Your task to perform on an android device: Open Google Maps and go to "Timeline" Image 0: 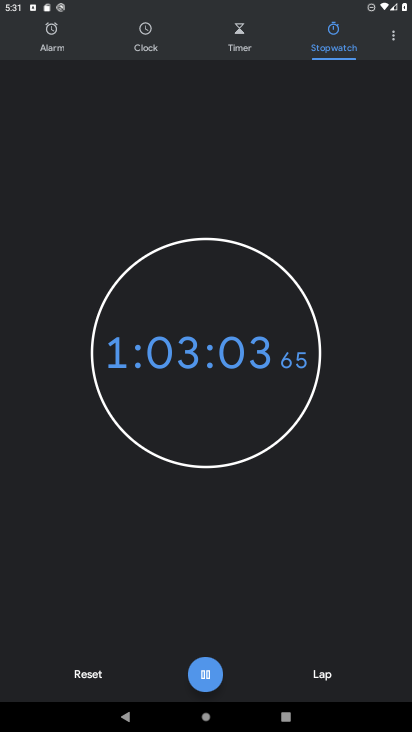
Step 0: press home button
Your task to perform on an android device: Open Google Maps and go to "Timeline" Image 1: 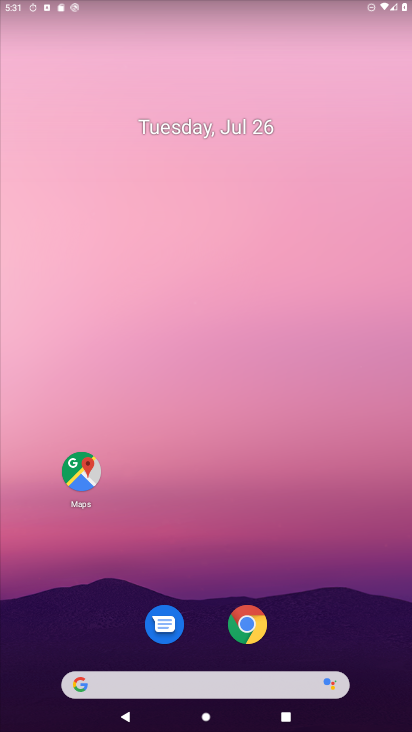
Step 1: drag from (184, 636) to (278, 71)
Your task to perform on an android device: Open Google Maps and go to "Timeline" Image 2: 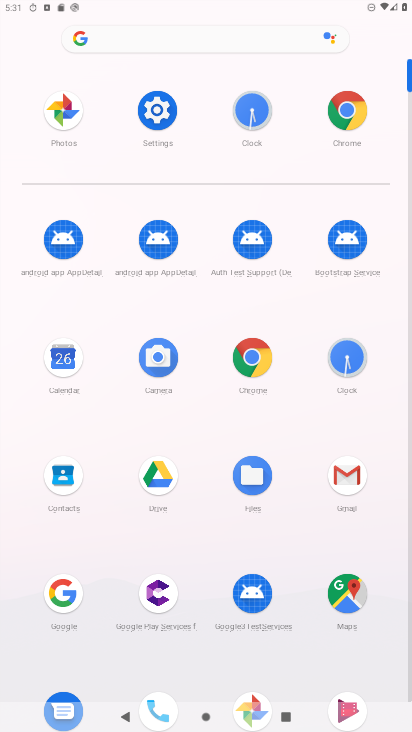
Step 2: click (345, 585)
Your task to perform on an android device: Open Google Maps and go to "Timeline" Image 3: 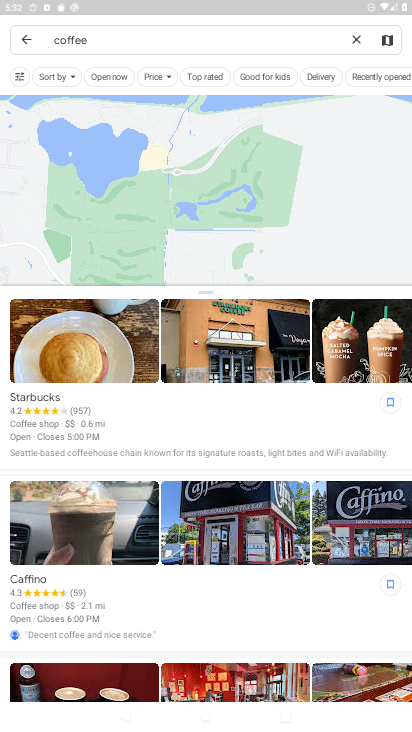
Step 3: press back button
Your task to perform on an android device: Open Google Maps and go to "Timeline" Image 4: 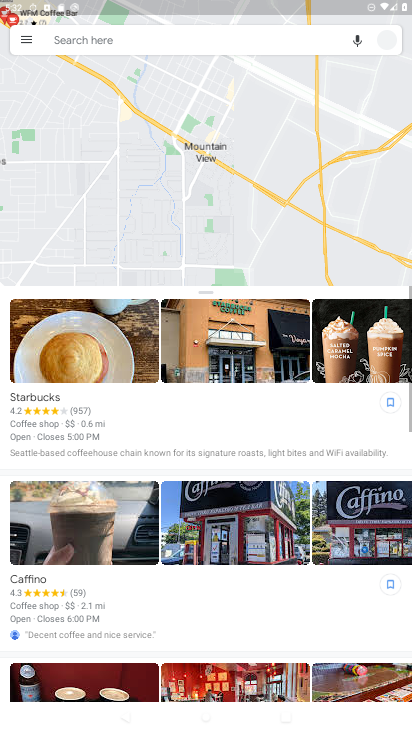
Step 4: click (17, 39)
Your task to perform on an android device: Open Google Maps and go to "Timeline" Image 5: 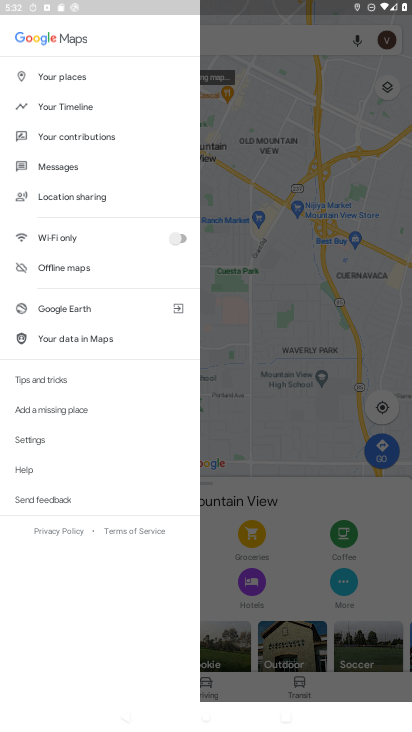
Step 5: click (67, 103)
Your task to perform on an android device: Open Google Maps and go to "Timeline" Image 6: 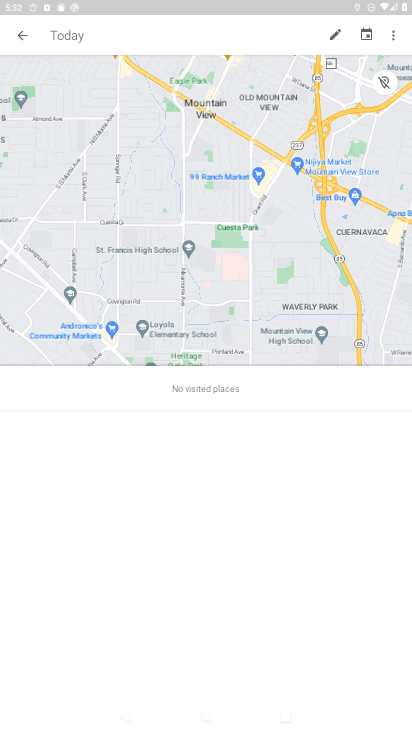
Step 6: task complete